Your task to perform on an android device: empty trash in google photos Image 0: 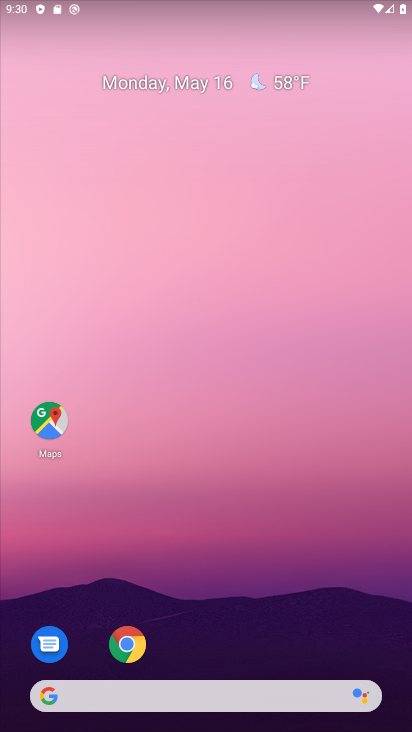
Step 0: drag from (244, 679) to (271, 121)
Your task to perform on an android device: empty trash in google photos Image 1: 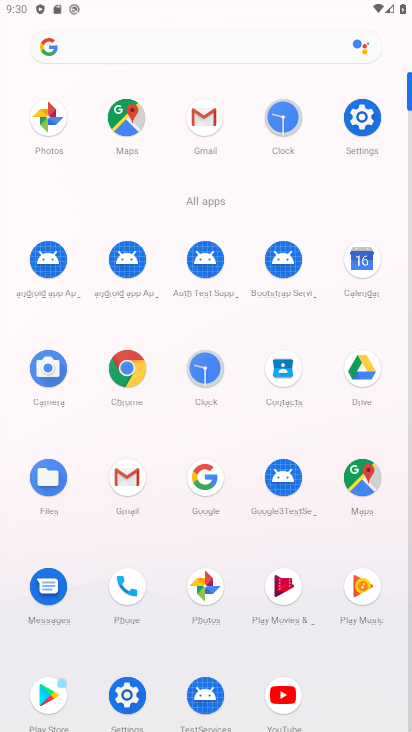
Step 1: click (187, 587)
Your task to perform on an android device: empty trash in google photos Image 2: 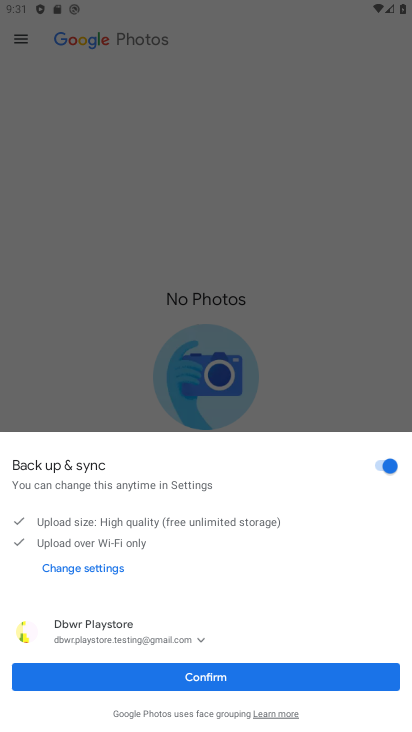
Step 2: click (201, 666)
Your task to perform on an android device: empty trash in google photos Image 3: 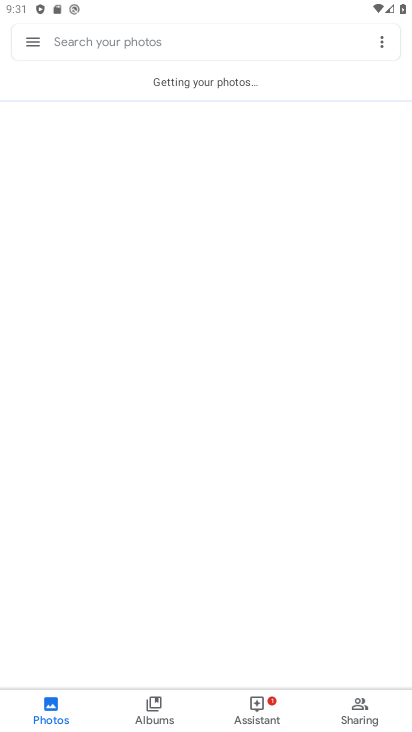
Step 3: click (35, 49)
Your task to perform on an android device: empty trash in google photos Image 4: 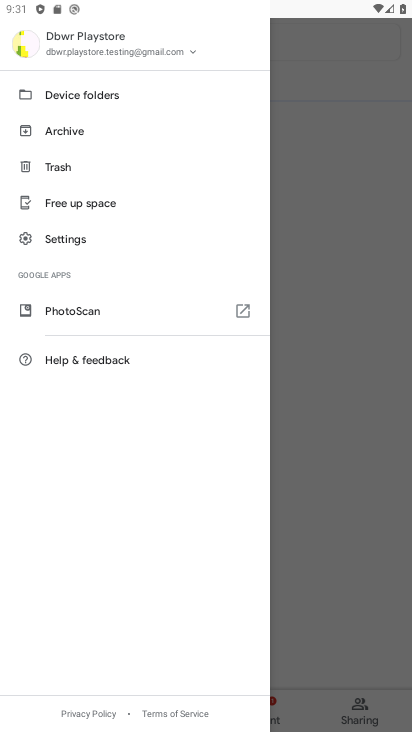
Step 4: click (46, 164)
Your task to perform on an android device: empty trash in google photos Image 5: 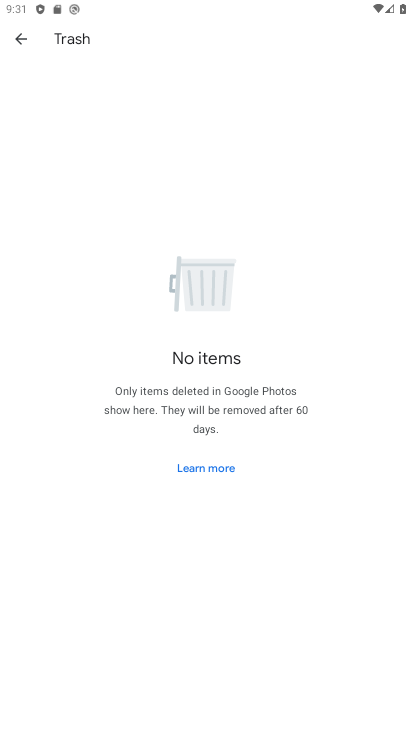
Step 5: task complete